Your task to perform on an android device: Open Google Chrome Image 0: 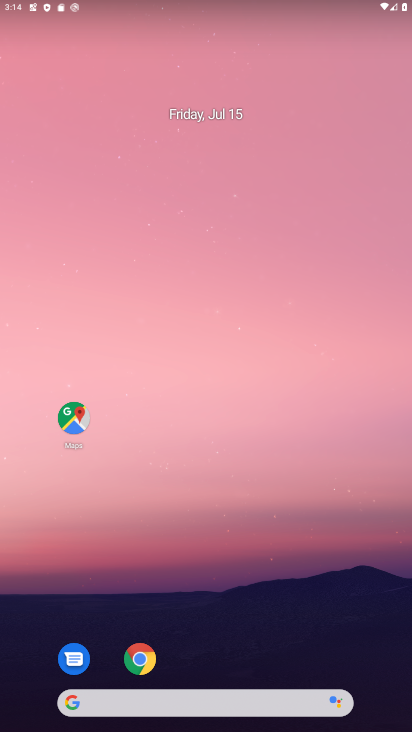
Step 0: click (141, 661)
Your task to perform on an android device: Open Google Chrome Image 1: 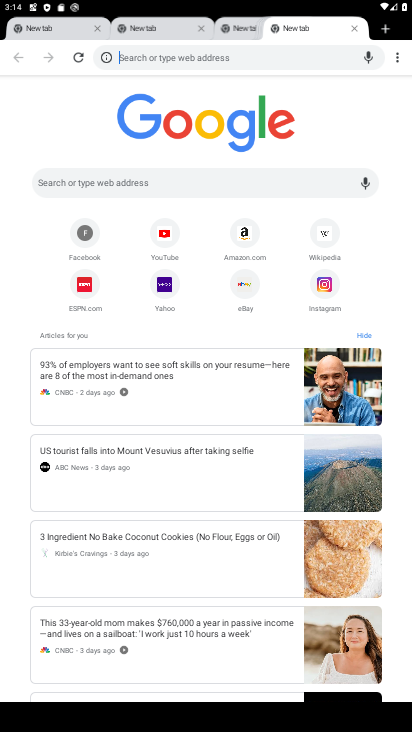
Step 1: task complete